Your task to perform on an android device: Open sound settings Image 0: 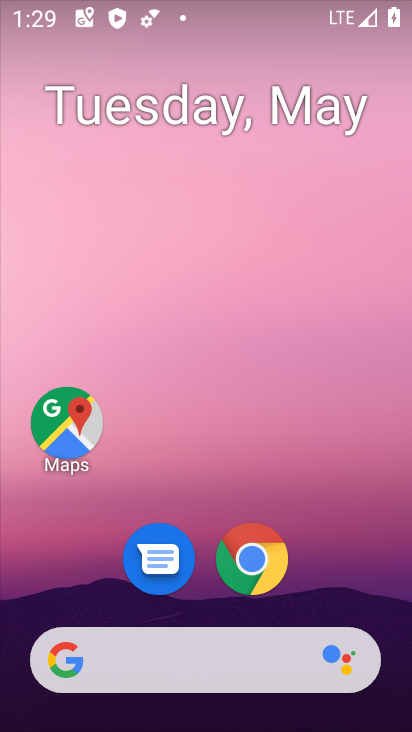
Step 0: drag from (341, 551) to (265, 103)
Your task to perform on an android device: Open sound settings Image 1: 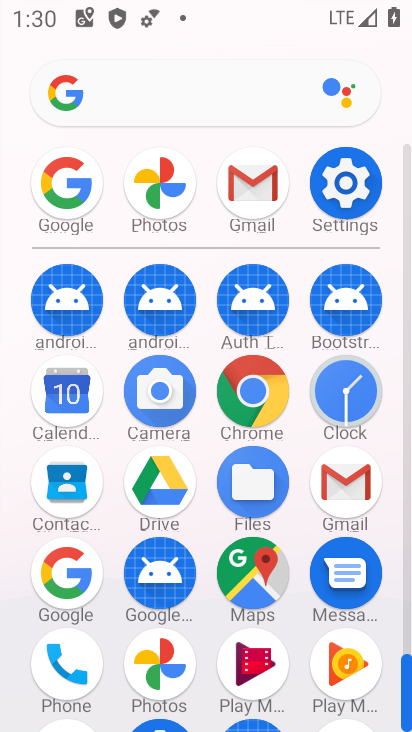
Step 1: click (334, 211)
Your task to perform on an android device: Open sound settings Image 2: 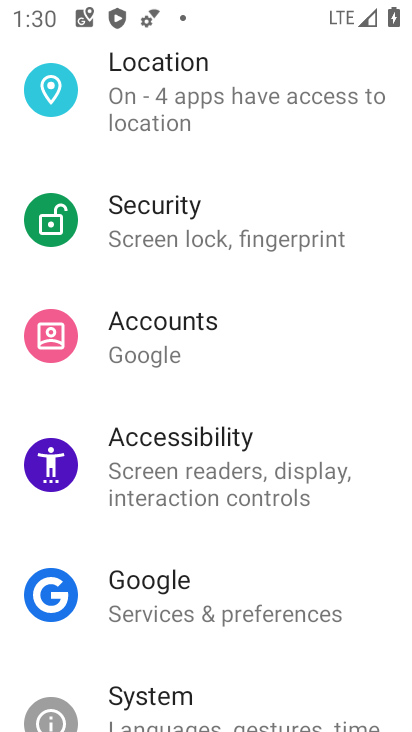
Step 2: drag from (222, 199) to (159, 730)
Your task to perform on an android device: Open sound settings Image 3: 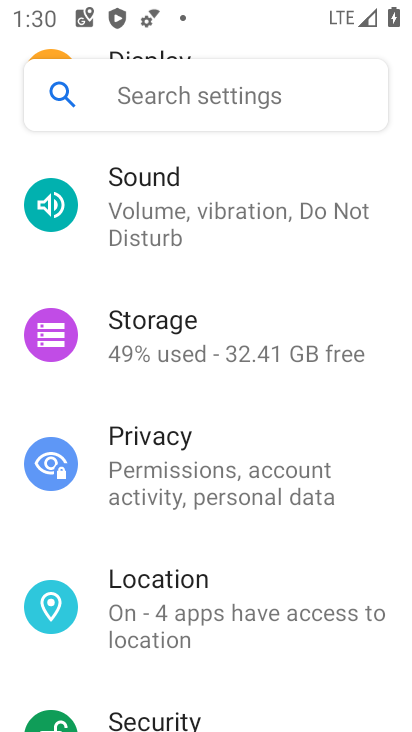
Step 3: click (174, 218)
Your task to perform on an android device: Open sound settings Image 4: 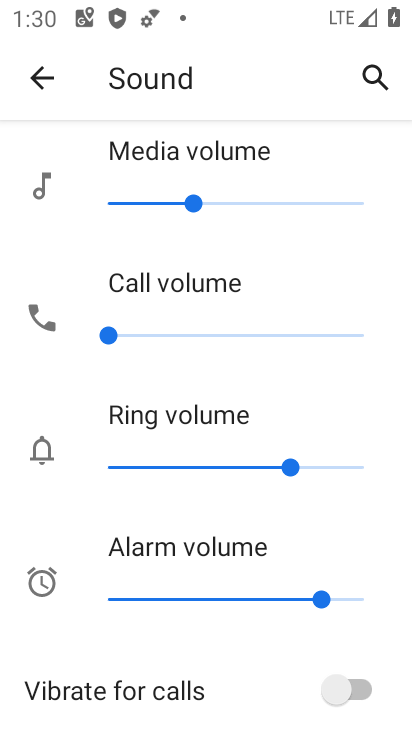
Step 4: task complete